Your task to perform on an android device: turn off location history Image 0: 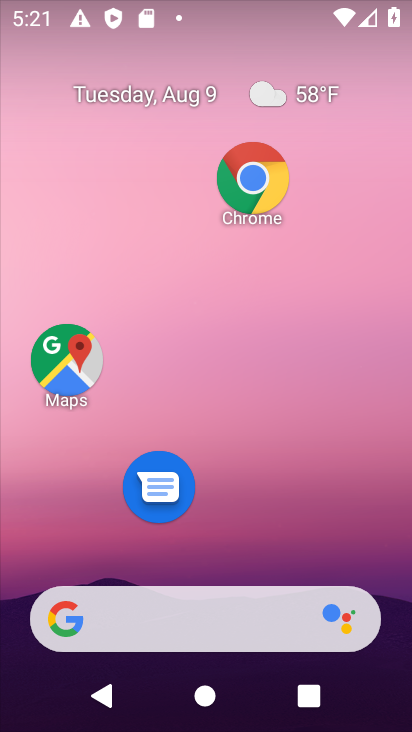
Step 0: drag from (257, 499) to (195, 17)
Your task to perform on an android device: turn off location history Image 1: 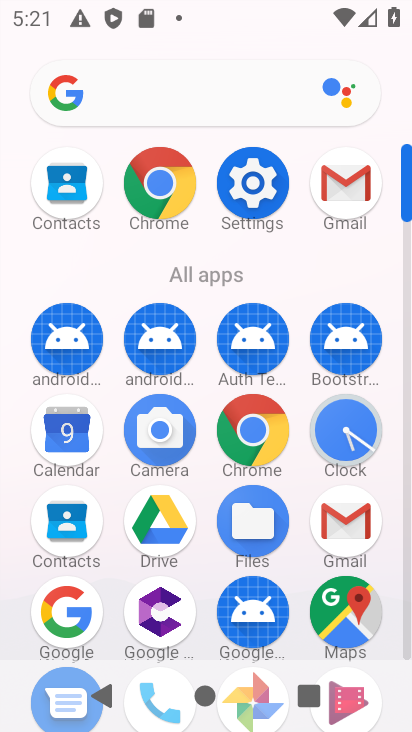
Step 1: click (275, 196)
Your task to perform on an android device: turn off location history Image 2: 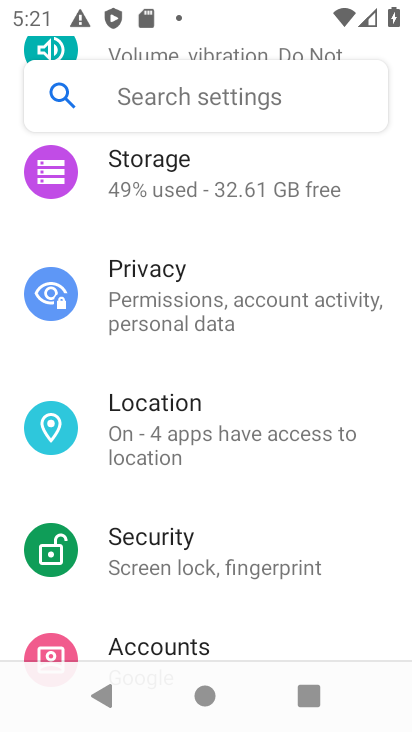
Step 2: click (150, 439)
Your task to perform on an android device: turn off location history Image 3: 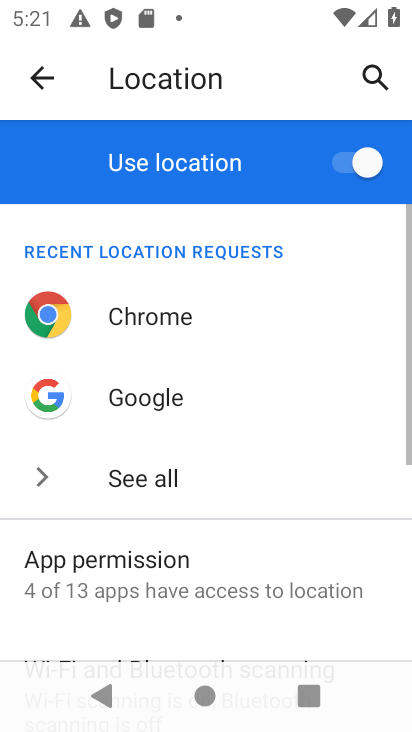
Step 3: drag from (150, 439) to (119, 36)
Your task to perform on an android device: turn off location history Image 4: 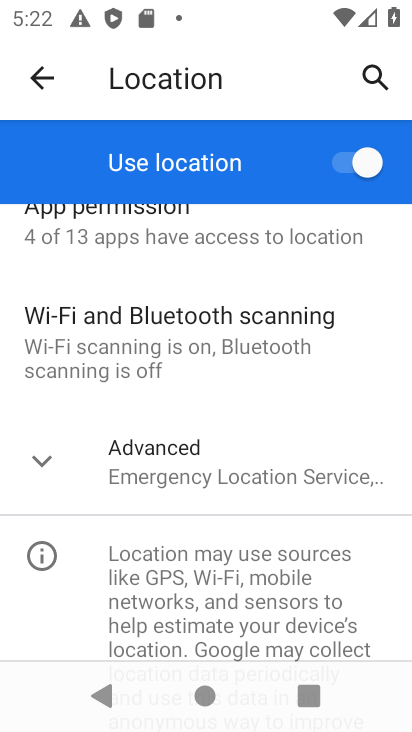
Step 4: drag from (93, 525) to (135, 186)
Your task to perform on an android device: turn off location history Image 5: 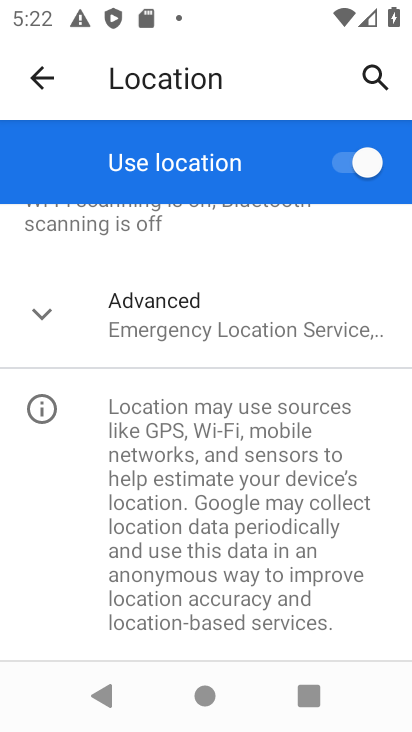
Step 5: click (101, 316)
Your task to perform on an android device: turn off location history Image 6: 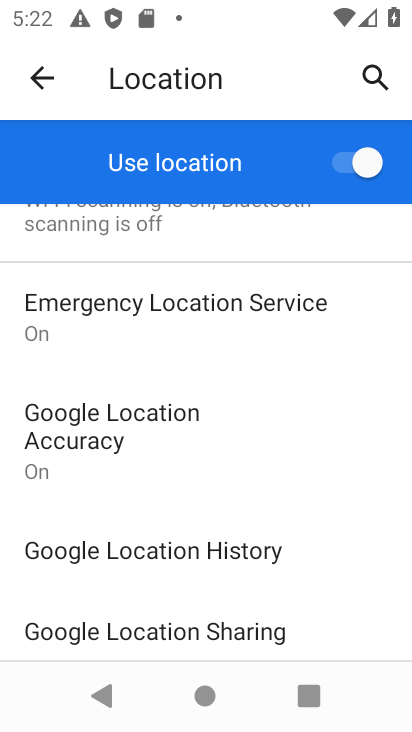
Step 6: click (89, 561)
Your task to perform on an android device: turn off location history Image 7: 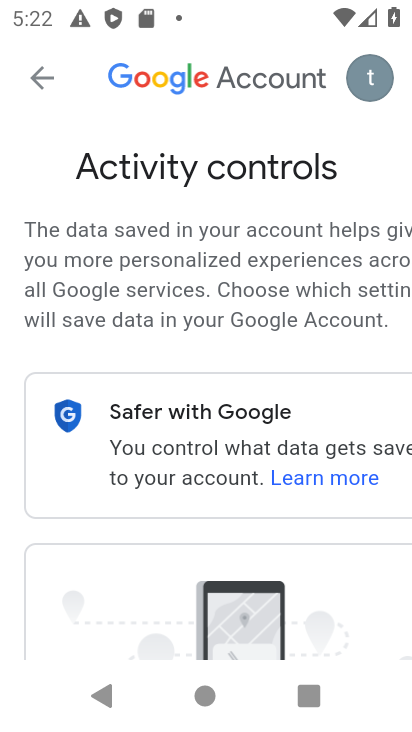
Step 7: task complete